Your task to perform on an android device: turn off smart reply in the gmail app Image 0: 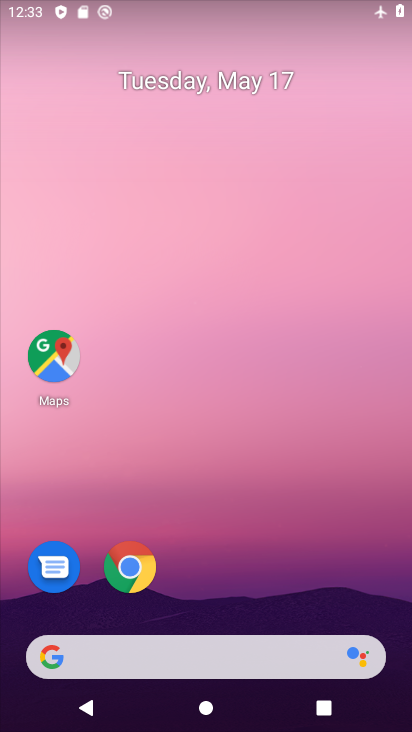
Step 0: drag from (312, 214) to (283, 422)
Your task to perform on an android device: turn off smart reply in the gmail app Image 1: 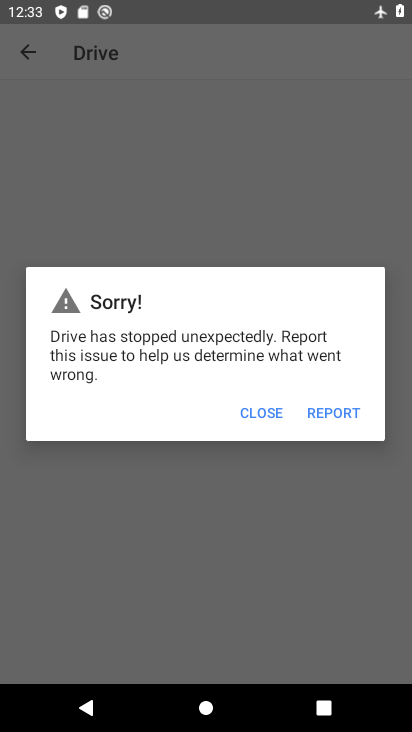
Step 1: press home button
Your task to perform on an android device: turn off smart reply in the gmail app Image 2: 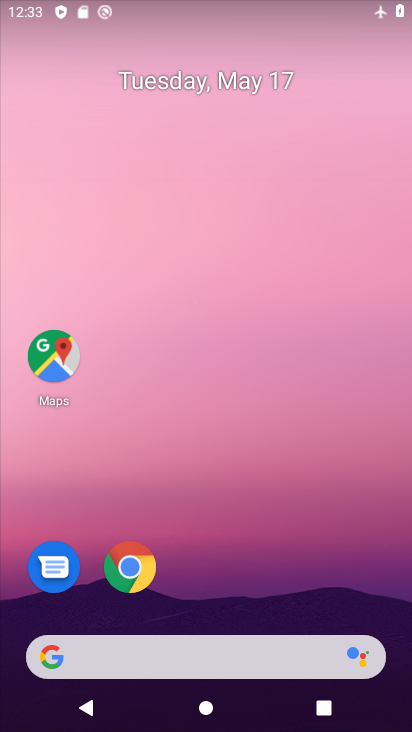
Step 2: drag from (292, 562) to (213, 78)
Your task to perform on an android device: turn off smart reply in the gmail app Image 3: 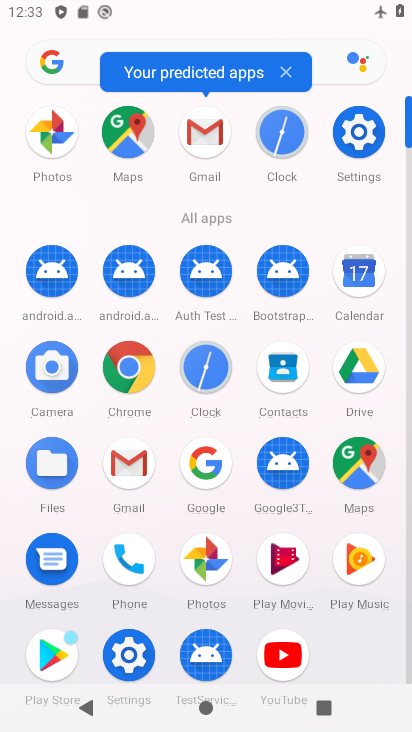
Step 3: click (202, 132)
Your task to perform on an android device: turn off smart reply in the gmail app Image 4: 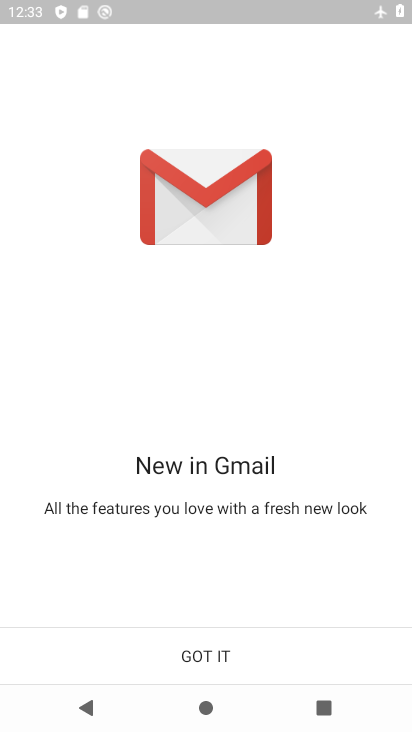
Step 4: click (256, 648)
Your task to perform on an android device: turn off smart reply in the gmail app Image 5: 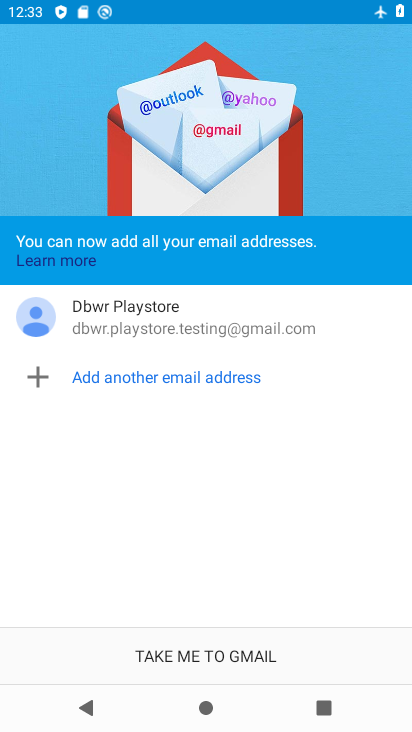
Step 5: click (213, 647)
Your task to perform on an android device: turn off smart reply in the gmail app Image 6: 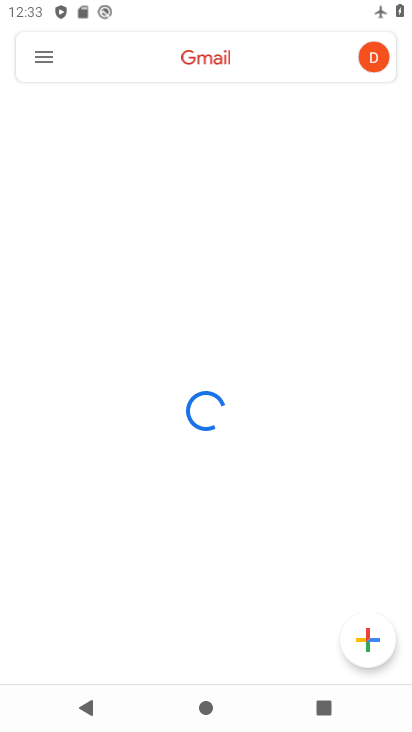
Step 6: click (42, 51)
Your task to perform on an android device: turn off smart reply in the gmail app Image 7: 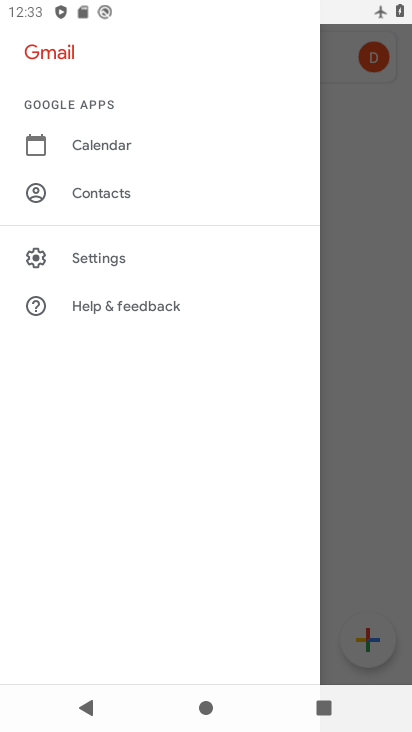
Step 7: click (93, 251)
Your task to perform on an android device: turn off smart reply in the gmail app Image 8: 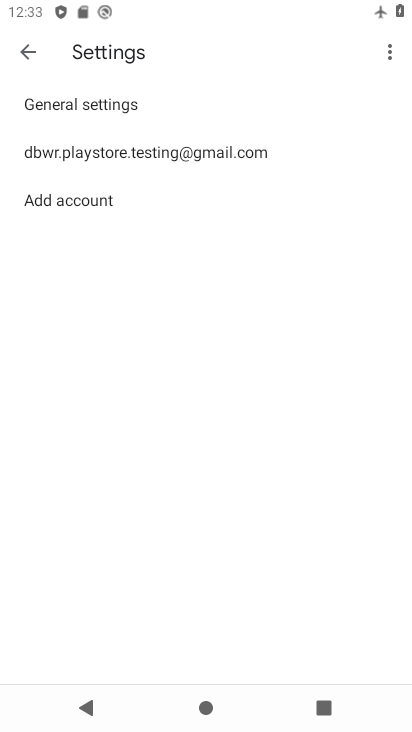
Step 8: click (104, 157)
Your task to perform on an android device: turn off smart reply in the gmail app Image 9: 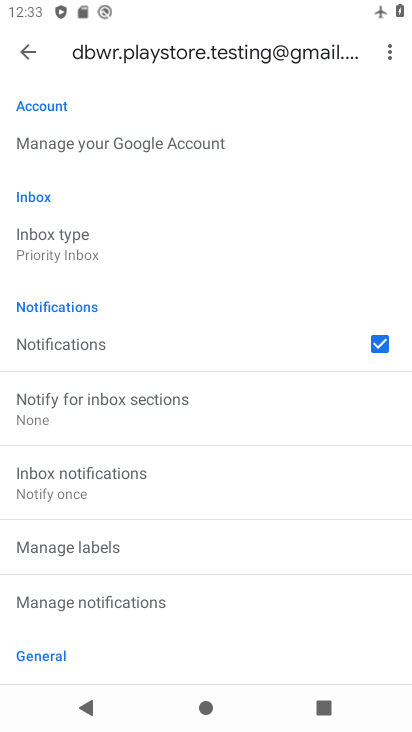
Step 9: drag from (233, 559) to (191, 199)
Your task to perform on an android device: turn off smart reply in the gmail app Image 10: 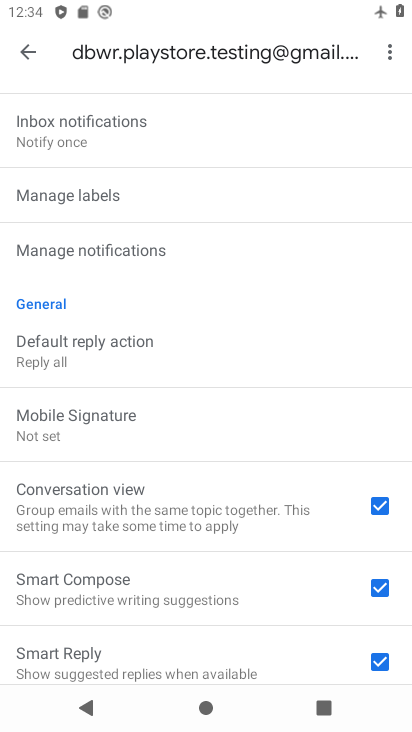
Step 10: click (384, 659)
Your task to perform on an android device: turn off smart reply in the gmail app Image 11: 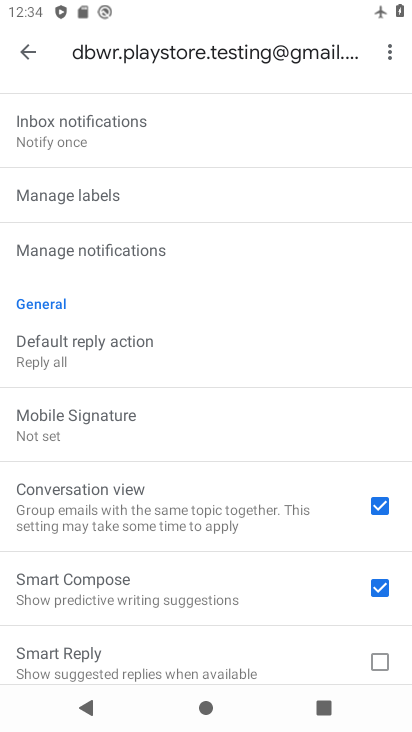
Step 11: task complete